Your task to perform on an android device: Search for pizza restaurants on Maps Image 0: 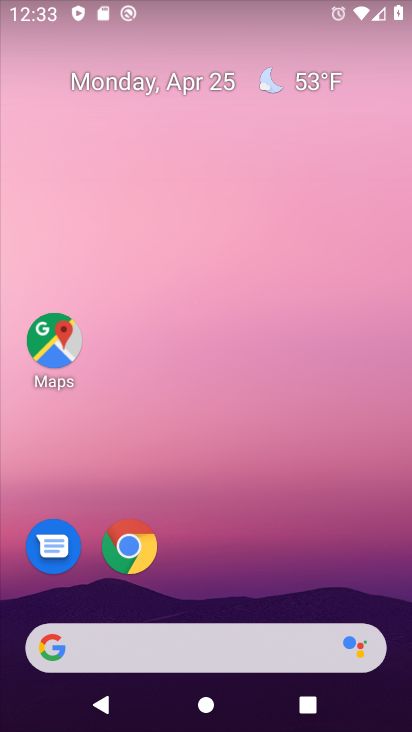
Step 0: click (52, 363)
Your task to perform on an android device: Search for pizza restaurants on Maps Image 1: 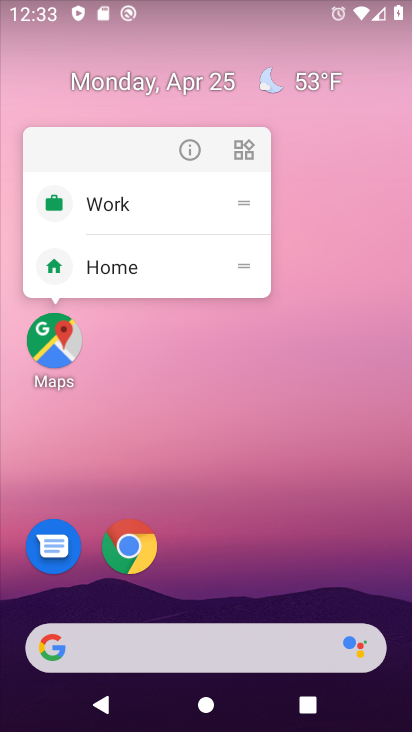
Step 1: click (50, 339)
Your task to perform on an android device: Search for pizza restaurants on Maps Image 2: 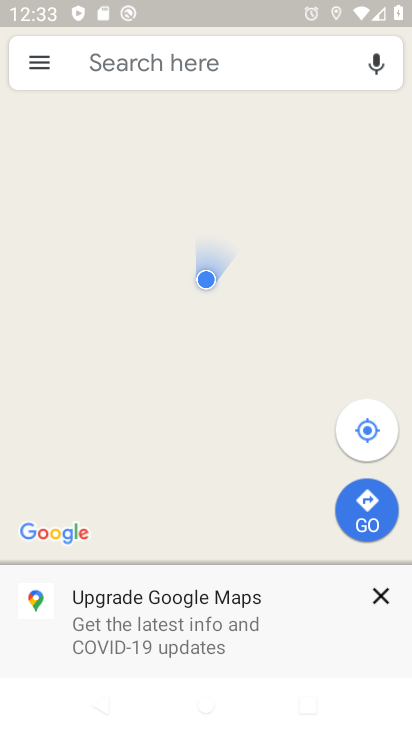
Step 2: click (179, 73)
Your task to perform on an android device: Search for pizza restaurants on Maps Image 3: 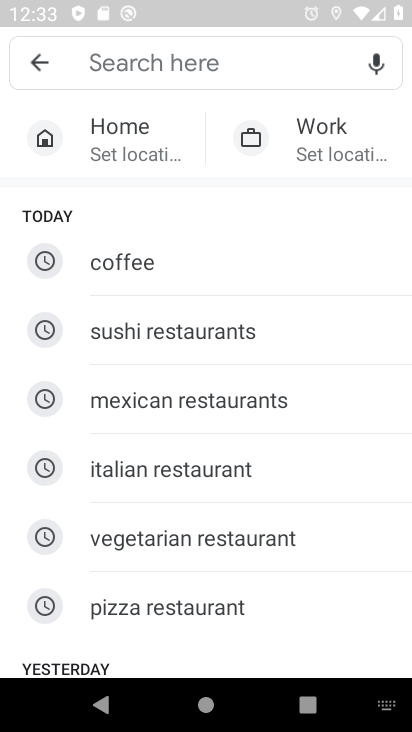
Step 3: type "pizza restaurants"
Your task to perform on an android device: Search for pizza restaurants on Maps Image 4: 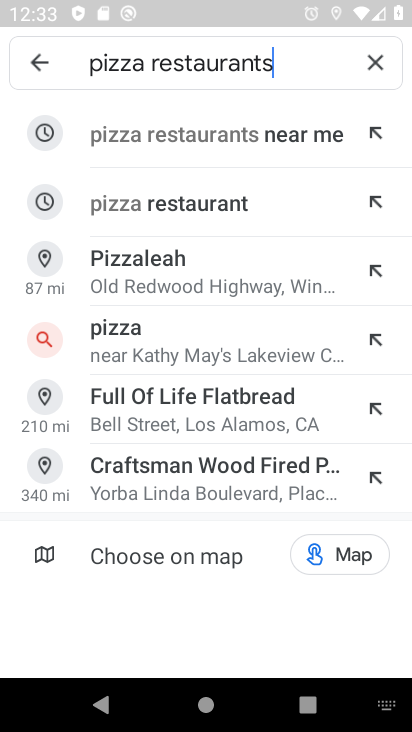
Step 4: click (146, 197)
Your task to perform on an android device: Search for pizza restaurants on Maps Image 5: 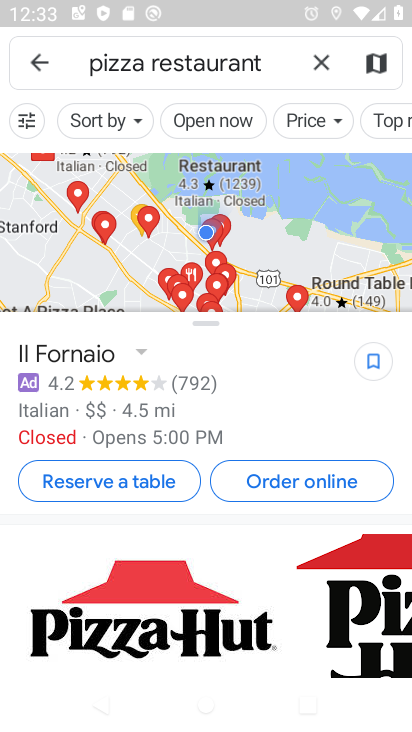
Step 5: task complete